Your task to perform on an android device: Open Chrome and go to settings Image 0: 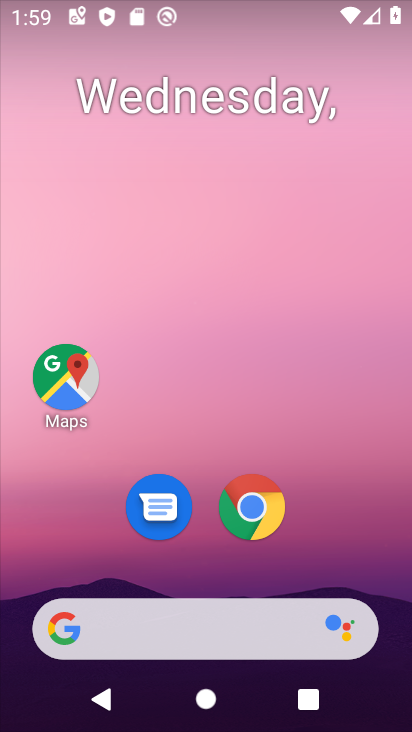
Step 0: drag from (340, 549) to (326, 219)
Your task to perform on an android device: Open Chrome and go to settings Image 1: 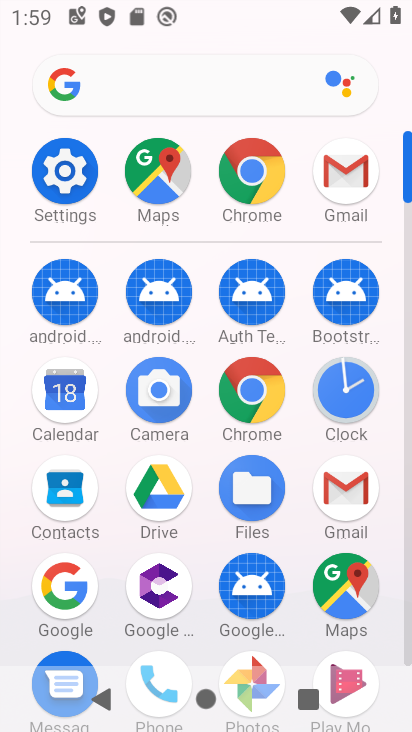
Step 1: click (48, 194)
Your task to perform on an android device: Open Chrome and go to settings Image 2: 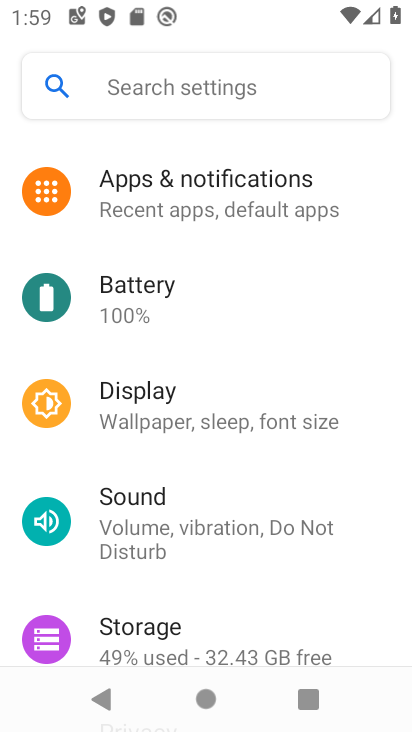
Step 2: task complete